Your task to perform on an android device: Open Google Chrome Image 0: 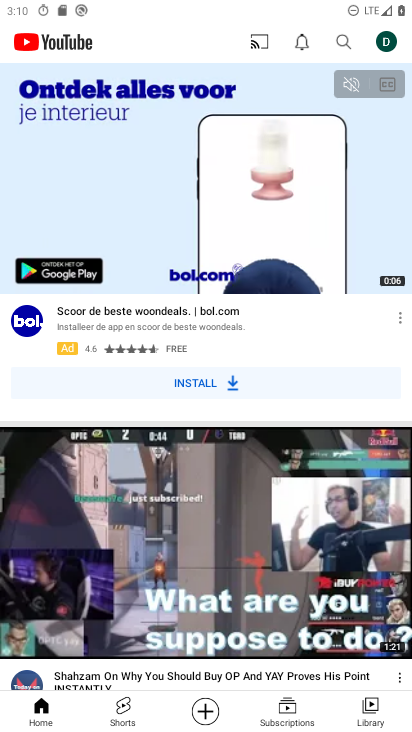
Step 0: press home button
Your task to perform on an android device: Open Google Chrome Image 1: 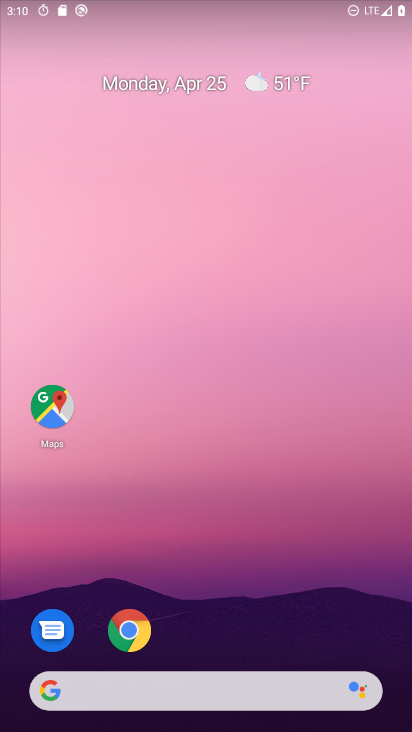
Step 1: drag from (195, 615) to (221, 287)
Your task to perform on an android device: Open Google Chrome Image 2: 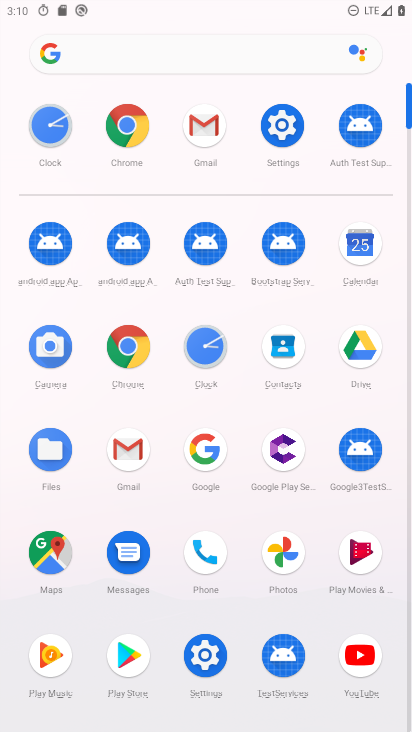
Step 2: click (125, 341)
Your task to perform on an android device: Open Google Chrome Image 3: 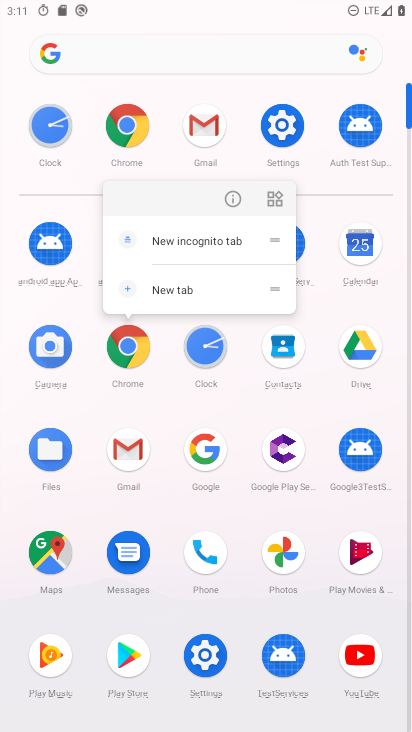
Step 3: click (236, 183)
Your task to perform on an android device: Open Google Chrome Image 4: 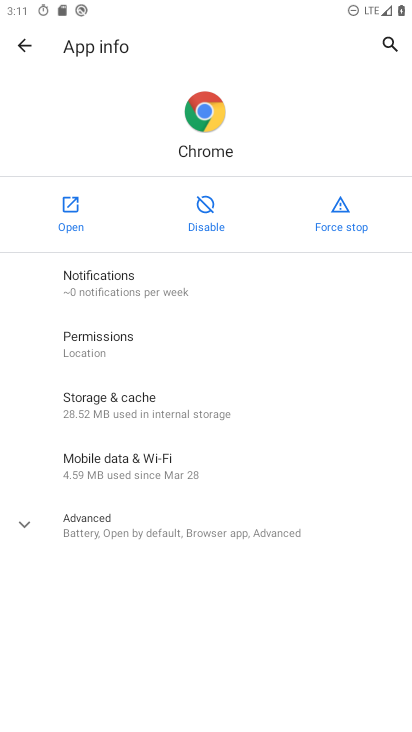
Step 4: click (87, 208)
Your task to perform on an android device: Open Google Chrome Image 5: 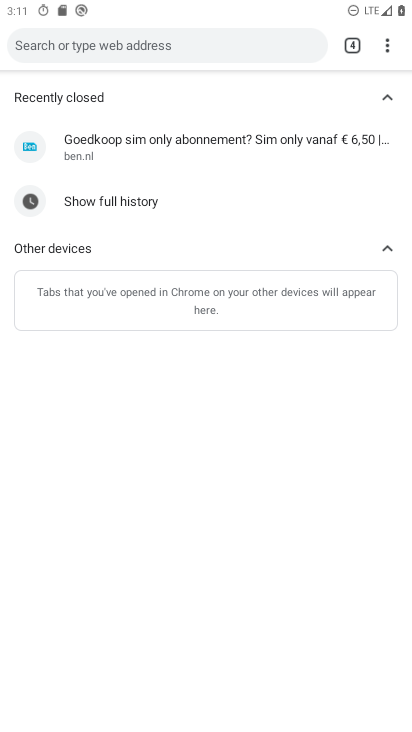
Step 5: task complete